Your task to perform on an android device: turn off airplane mode Image 0: 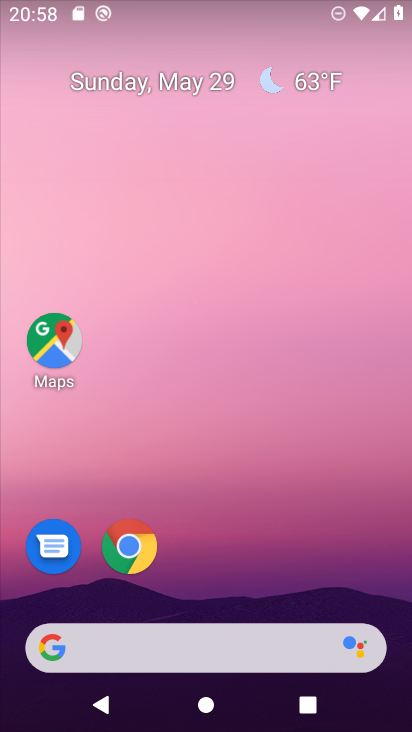
Step 0: press home button
Your task to perform on an android device: turn off airplane mode Image 1: 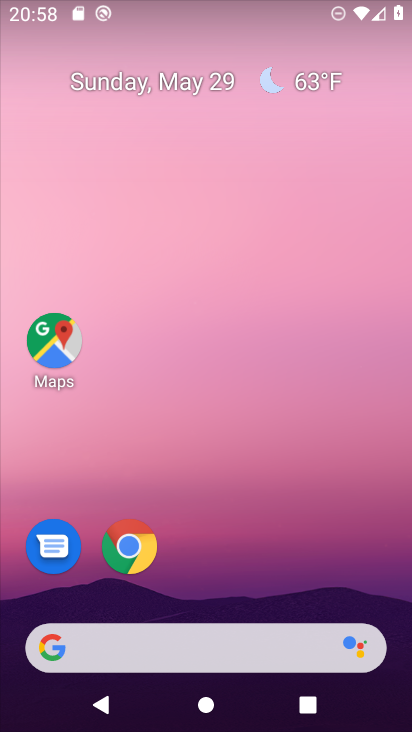
Step 1: drag from (144, 653) to (308, 97)
Your task to perform on an android device: turn off airplane mode Image 2: 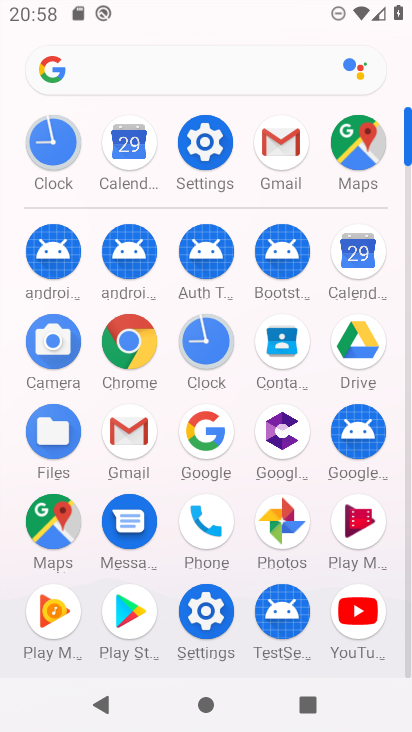
Step 2: click (213, 155)
Your task to perform on an android device: turn off airplane mode Image 3: 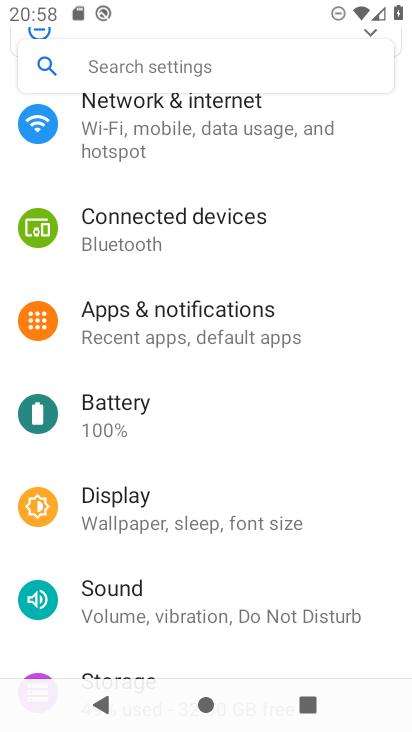
Step 3: drag from (350, 180) to (273, 643)
Your task to perform on an android device: turn off airplane mode Image 4: 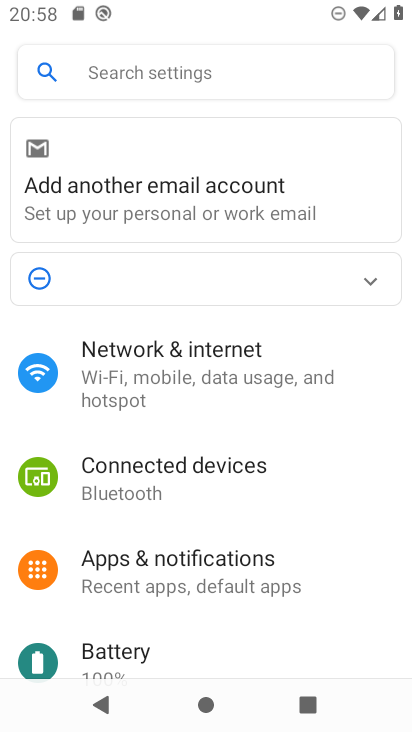
Step 4: click (193, 369)
Your task to perform on an android device: turn off airplane mode Image 5: 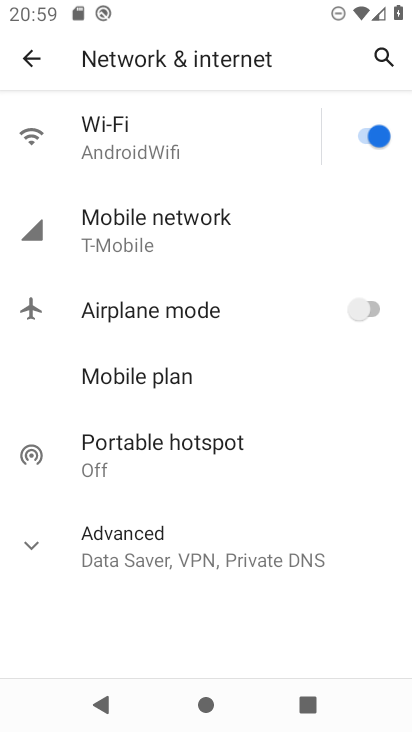
Step 5: task complete